Your task to perform on an android device: Open location settings Image 0: 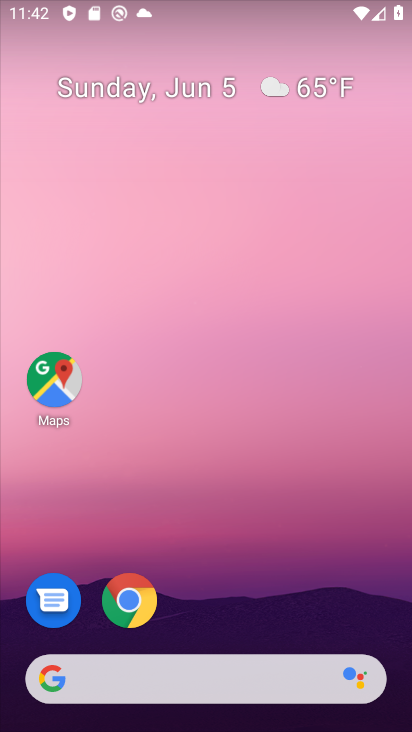
Step 0: drag from (376, 610) to (286, 224)
Your task to perform on an android device: Open location settings Image 1: 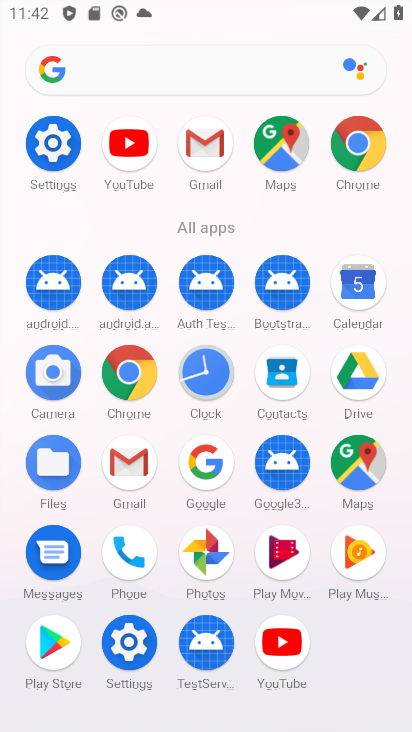
Step 1: click (42, 139)
Your task to perform on an android device: Open location settings Image 2: 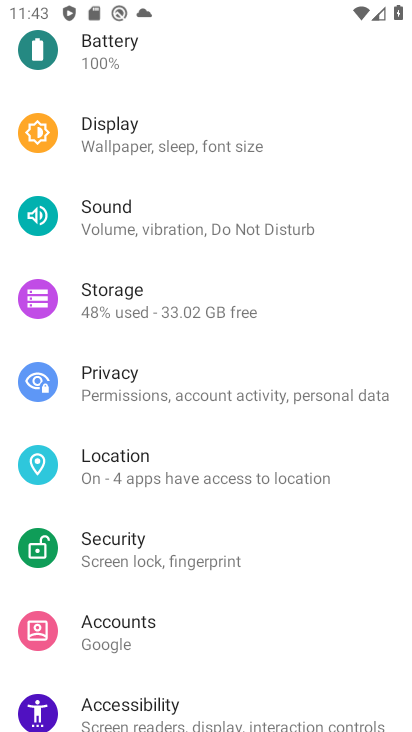
Step 2: click (155, 456)
Your task to perform on an android device: Open location settings Image 3: 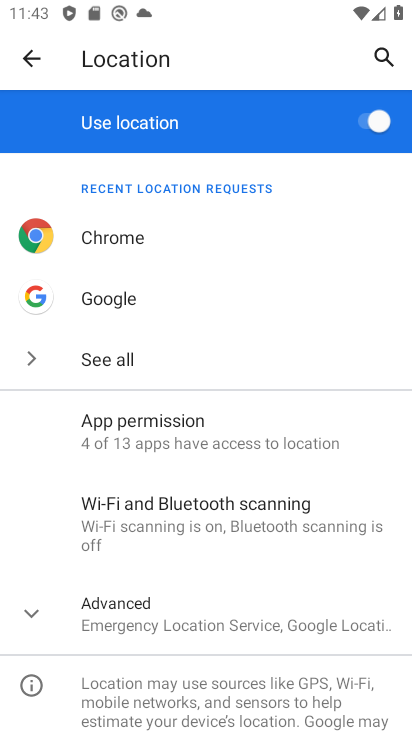
Step 3: drag from (257, 645) to (242, 248)
Your task to perform on an android device: Open location settings Image 4: 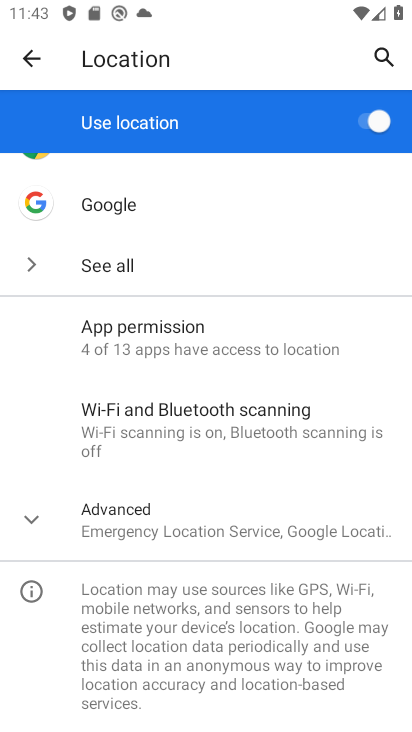
Step 4: click (36, 510)
Your task to perform on an android device: Open location settings Image 5: 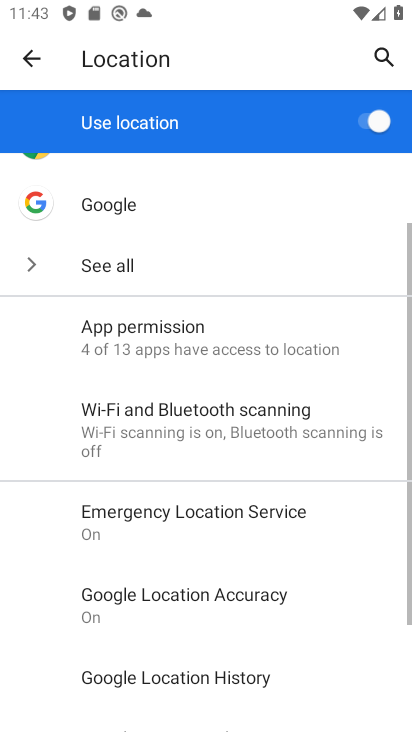
Step 5: task complete